Your task to perform on an android device: Open Google Chrome Image 0: 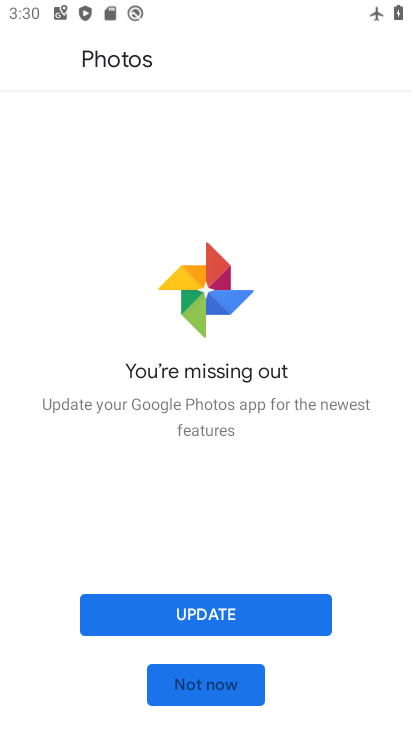
Step 0: press back button
Your task to perform on an android device: Open Google Chrome Image 1: 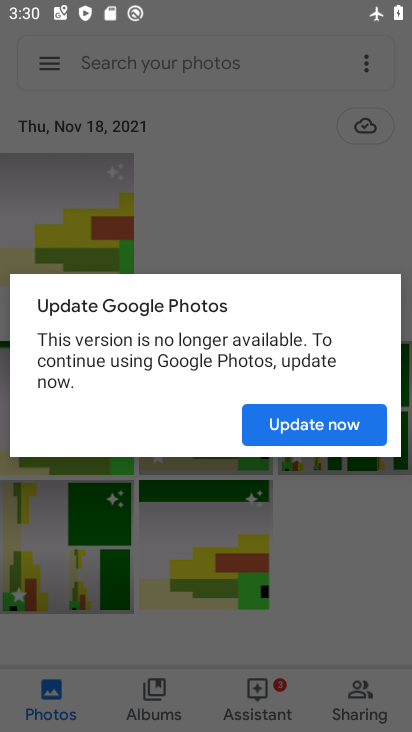
Step 1: press home button
Your task to perform on an android device: Open Google Chrome Image 2: 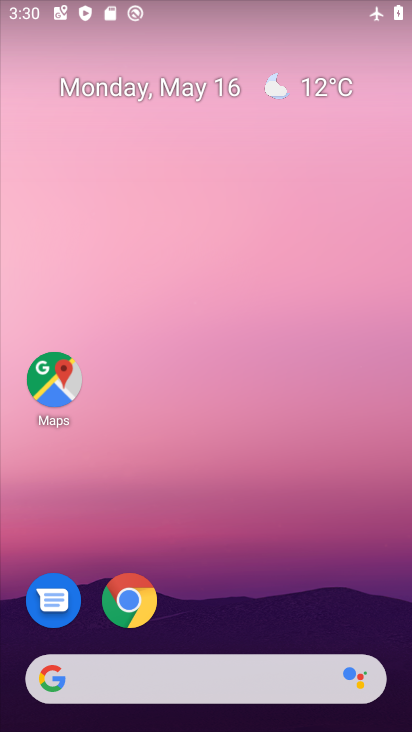
Step 2: click (137, 613)
Your task to perform on an android device: Open Google Chrome Image 3: 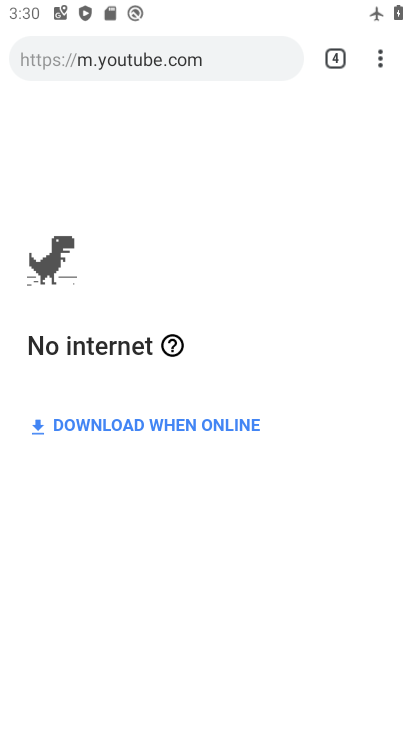
Step 3: task complete